Your task to perform on an android device: delete a single message in the gmail app Image 0: 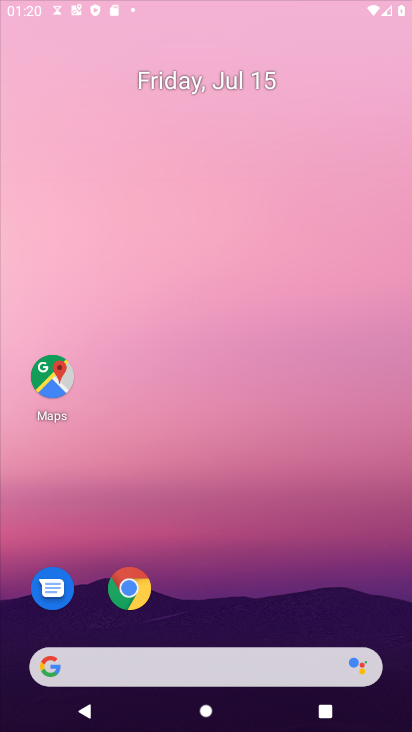
Step 0: click (292, 626)
Your task to perform on an android device: delete a single message in the gmail app Image 1: 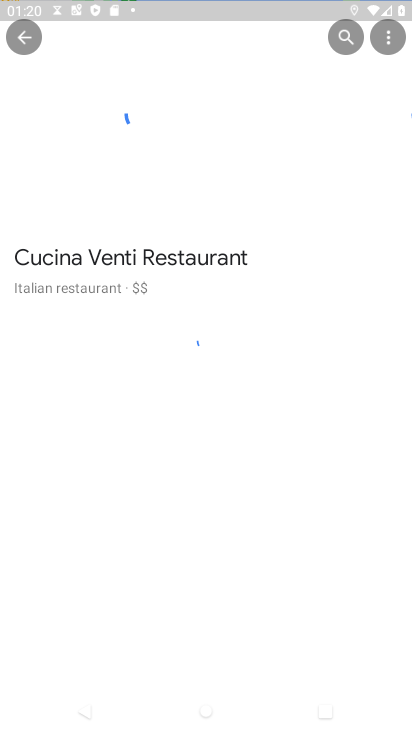
Step 1: press back button
Your task to perform on an android device: delete a single message in the gmail app Image 2: 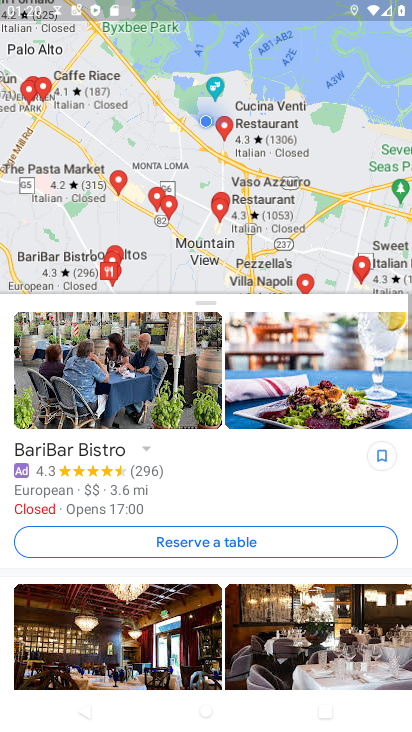
Step 2: press back button
Your task to perform on an android device: delete a single message in the gmail app Image 3: 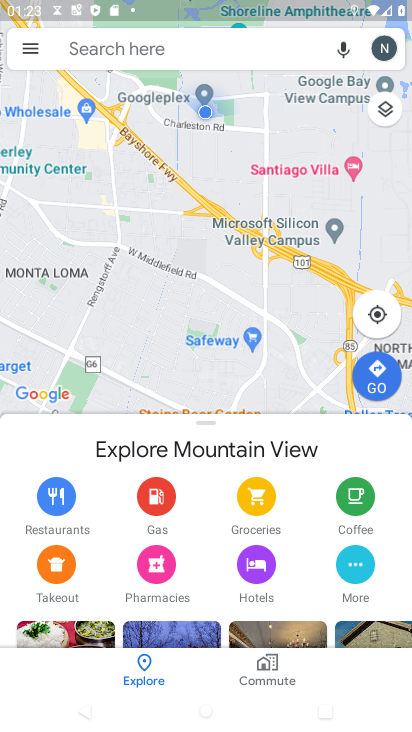
Step 3: press back button
Your task to perform on an android device: delete a single message in the gmail app Image 4: 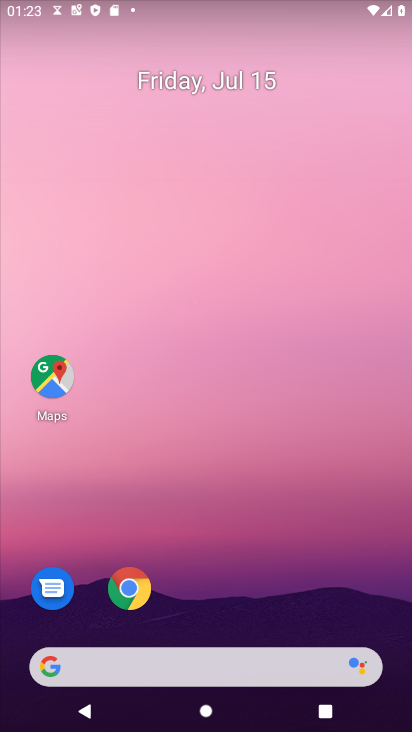
Step 4: drag from (290, 616) to (321, 3)
Your task to perform on an android device: delete a single message in the gmail app Image 5: 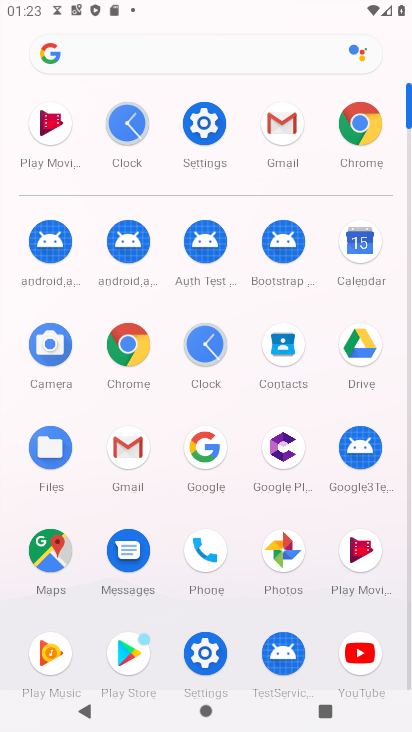
Step 5: click (280, 118)
Your task to perform on an android device: delete a single message in the gmail app Image 6: 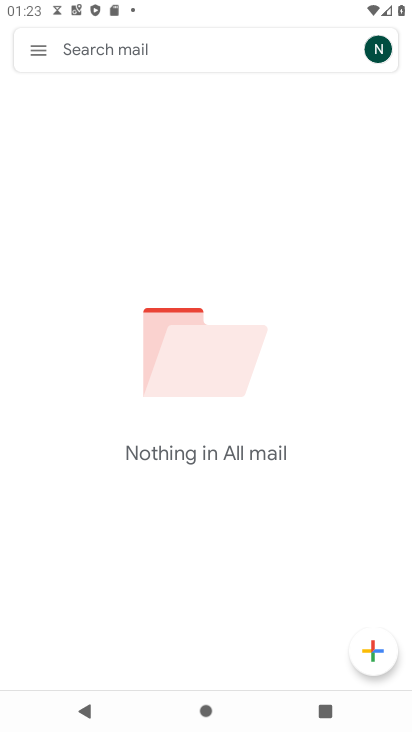
Step 6: task complete